Your task to perform on an android device: see tabs open on other devices in the chrome app Image 0: 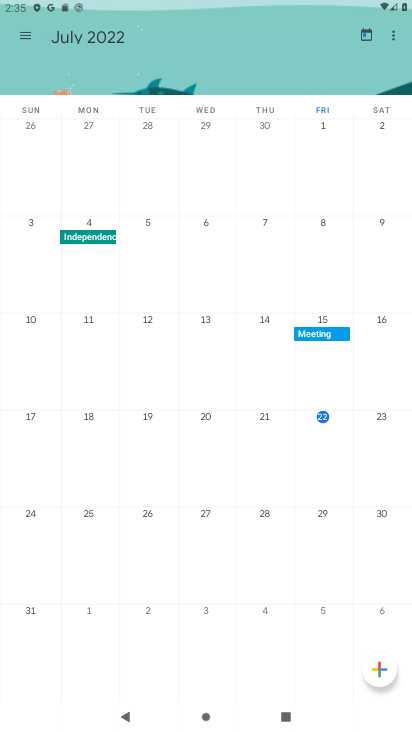
Step 0: press home button
Your task to perform on an android device: see tabs open on other devices in the chrome app Image 1: 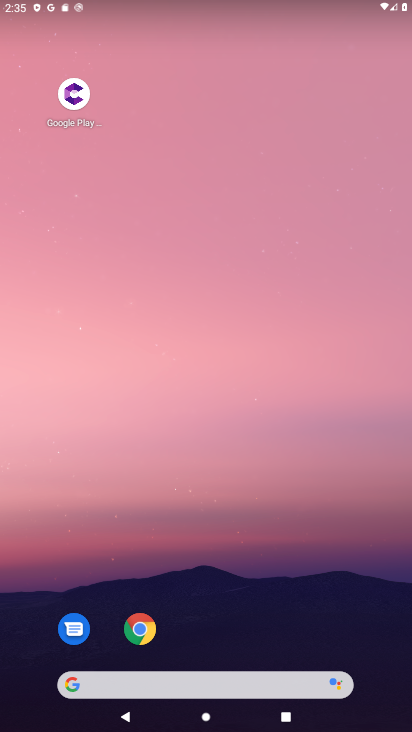
Step 1: click (142, 631)
Your task to perform on an android device: see tabs open on other devices in the chrome app Image 2: 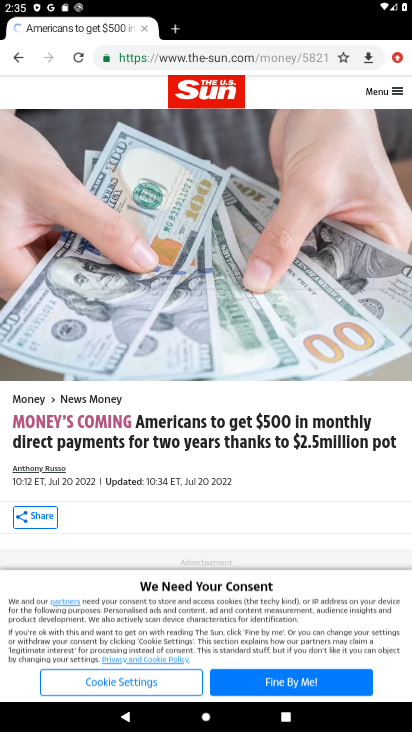
Step 2: click (393, 48)
Your task to perform on an android device: see tabs open on other devices in the chrome app Image 3: 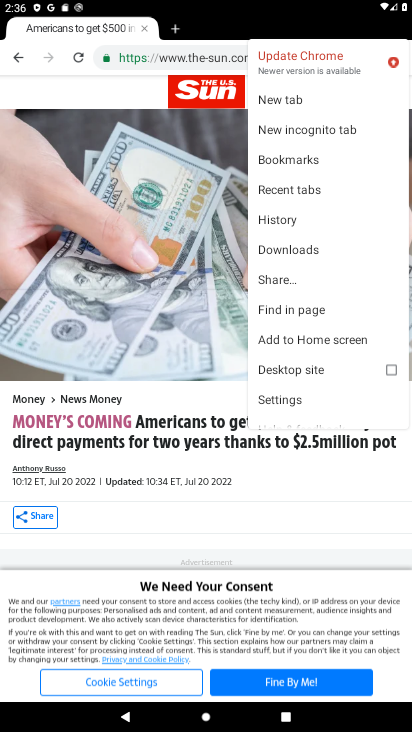
Step 3: click (289, 189)
Your task to perform on an android device: see tabs open on other devices in the chrome app Image 4: 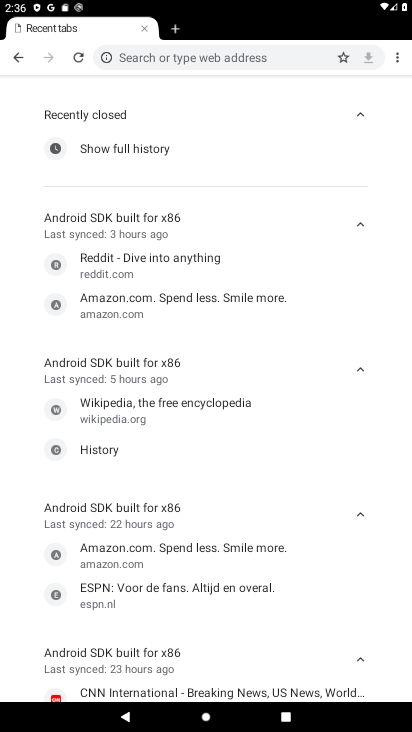
Step 4: task complete